Your task to perform on an android device: show emergency info Image 0: 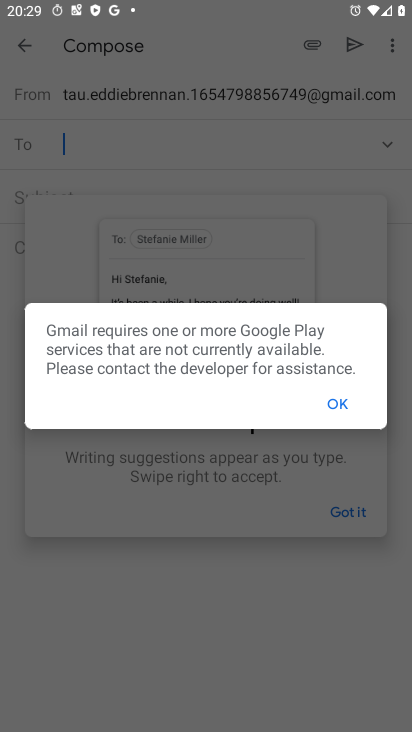
Step 0: press home button
Your task to perform on an android device: show emergency info Image 1: 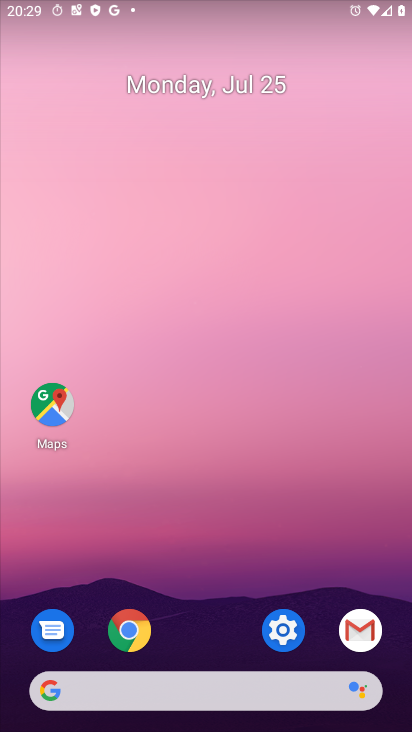
Step 1: click (288, 629)
Your task to perform on an android device: show emergency info Image 2: 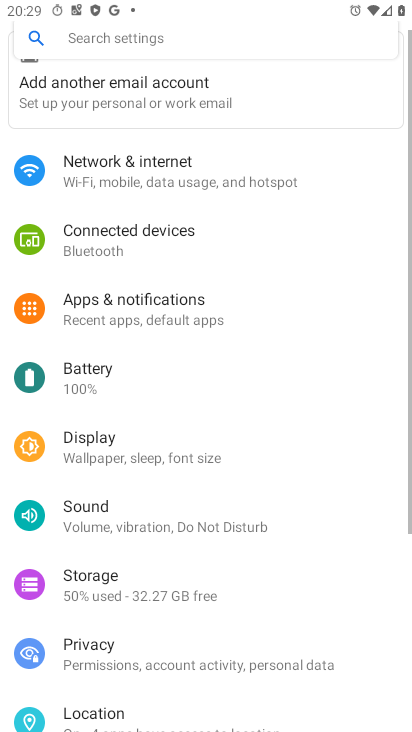
Step 2: click (93, 40)
Your task to perform on an android device: show emergency info Image 3: 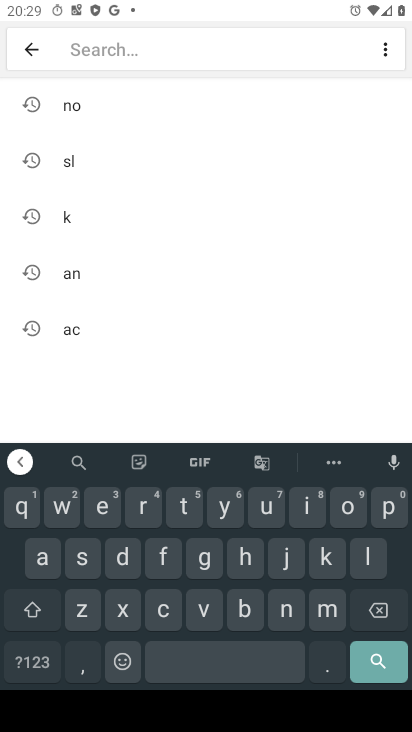
Step 3: click (104, 516)
Your task to perform on an android device: show emergency info Image 4: 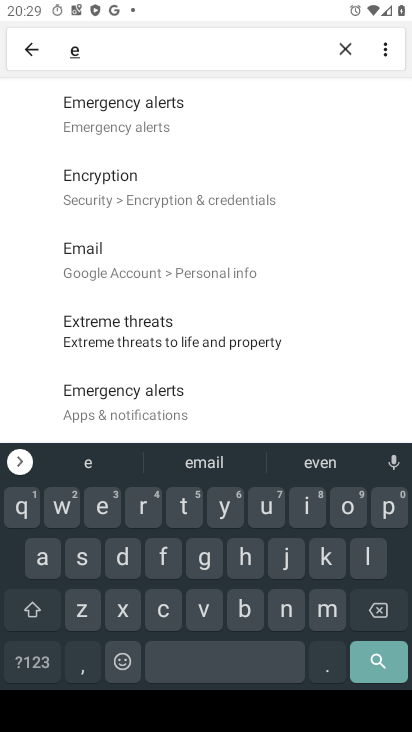
Step 4: drag from (130, 104) to (105, 412)
Your task to perform on an android device: show emergency info Image 5: 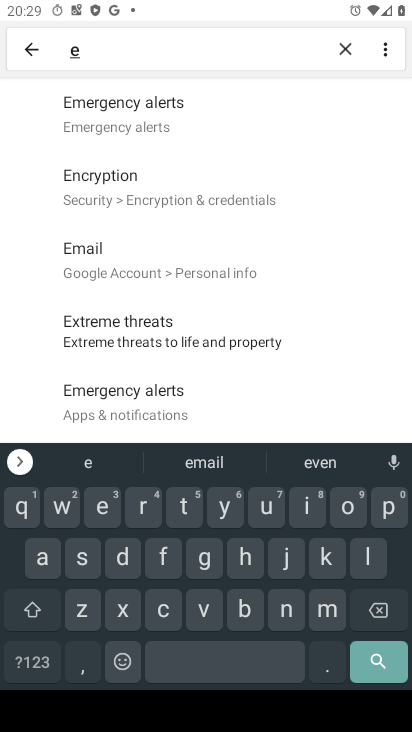
Step 5: click (321, 608)
Your task to perform on an android device: show emergency info Image 6: 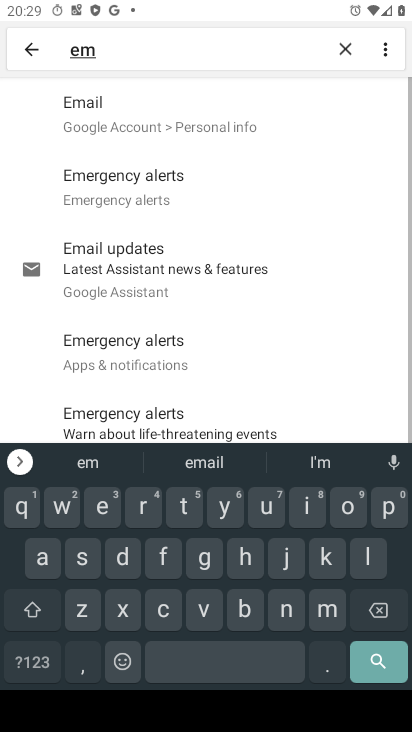
Step 6: click (102, 517)
Your task to perform on an android device: show emergency info Image 7: 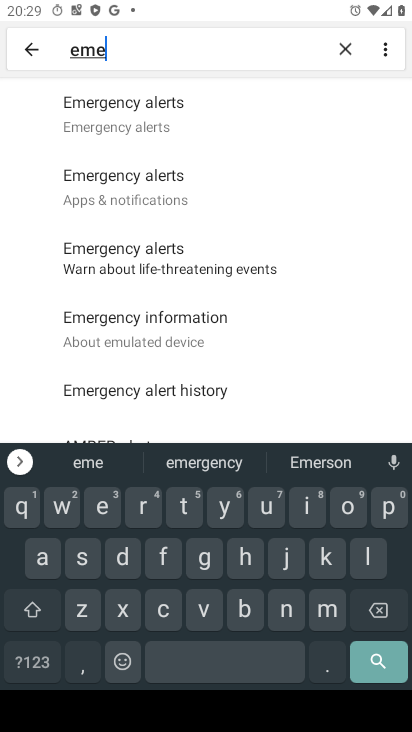
Step 7: click (207, 466)
Your task to perform on an android device: show emergency info Image 8: 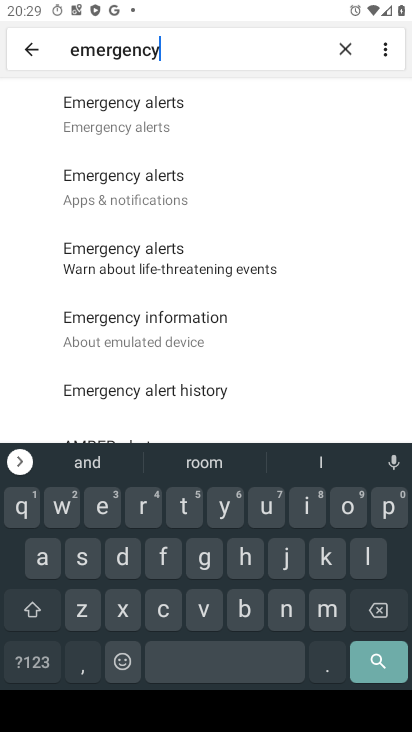
Step 8: click (314, 513)
Your task to perform on an android device: show emergency info Image 9: 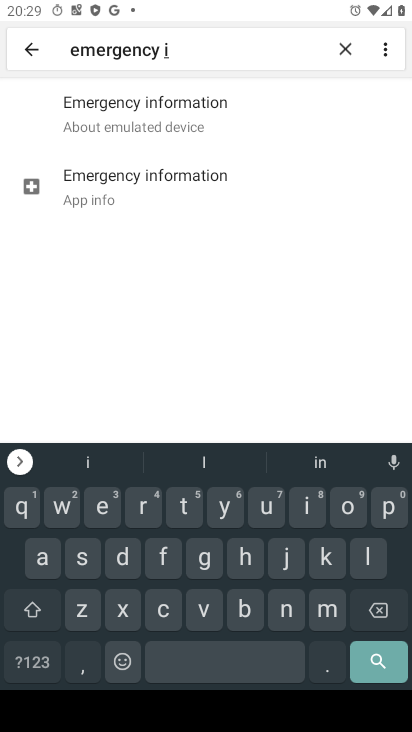
Step 9: click (166, 124)
Your task to perform on an android device: show emergency info Image 10: 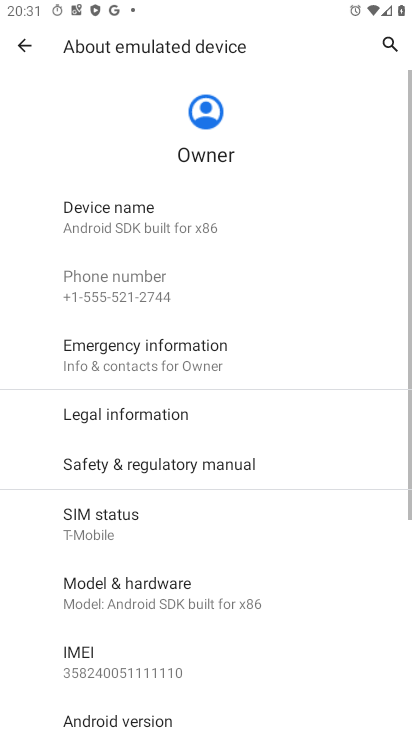
Step 10: task complete